Your task to perform on an android device: Open accessibility settings Image 0: 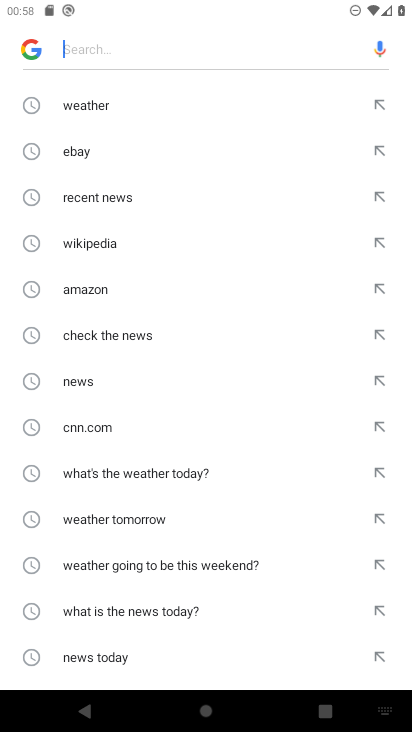
Step 0: press home button
Your task to perform on an android device: Open accessibility settings Image 1: 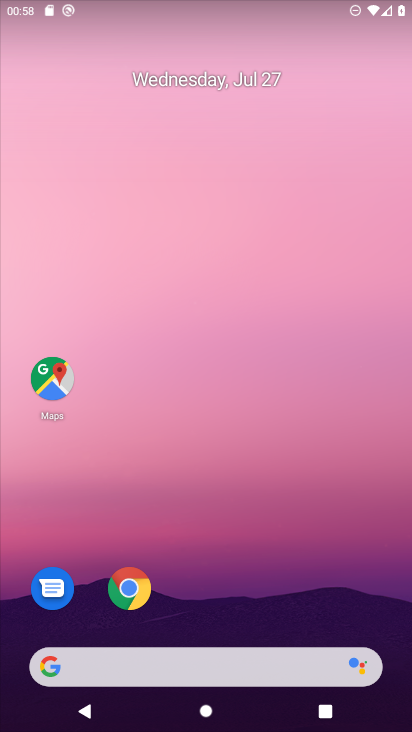
Step 1: drag from (117, 558) to (345, 6)
Your task to perform on an android device: Open accessibility settings Image 2: 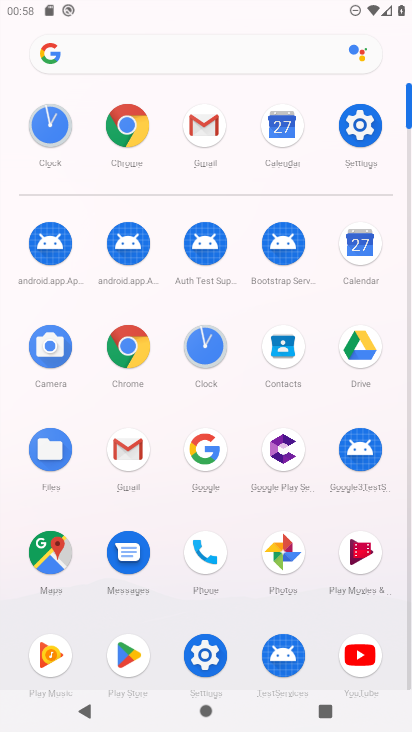
Step 2: click (187, 650)
Your task to perform on an android device: Open accessibility settings Image 3: 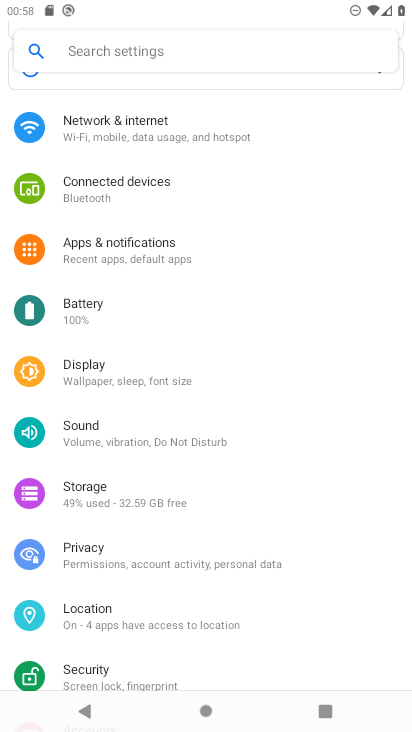
Step 3: drag from (188, 602) to (212, 361)
Your task to perform on an android device: Open accessibility settings Image 4: 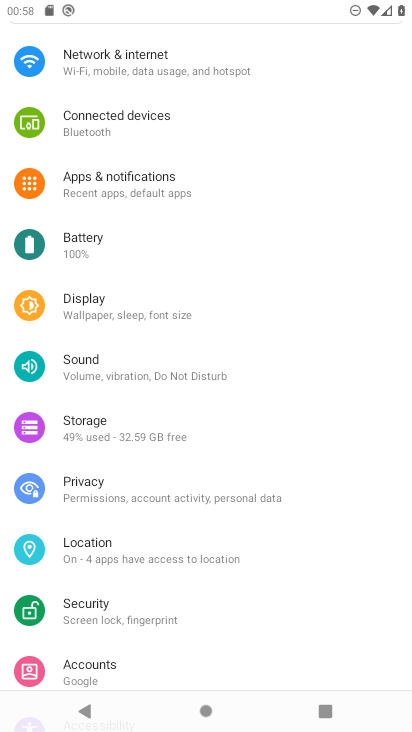
Step 4: drag from (256, 272) to (299, 570)
Your task to perform on an android device: Open accessibility settings Image 5: 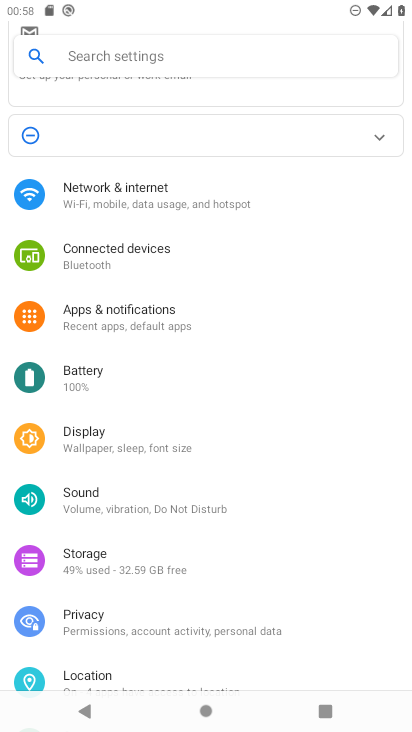
Step 5: drag from (297, 527) to (332, 73)
Your task to perform on an android device: Open accessibility settings Image 6: 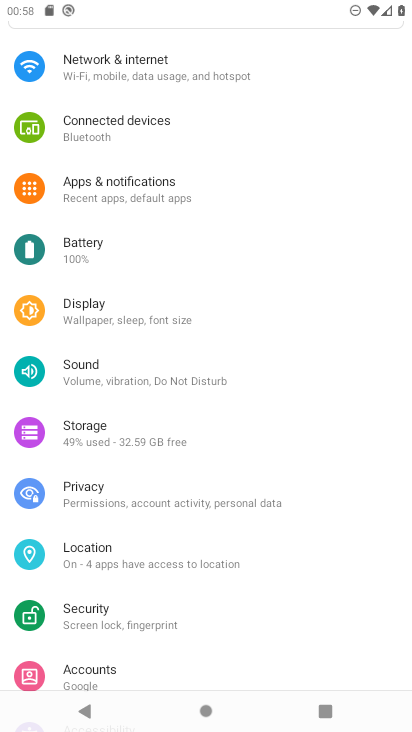
Step 6: drag from (250, 687) to (291, 236)
Your task to perform on an android device: Open accessibility settings Image 7: 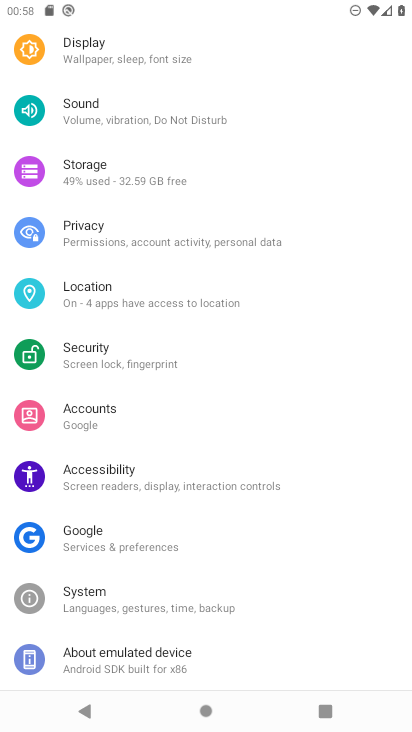
Step 7: click (116, 483)
Your task to perform on an android device: Open accessibility settings Image 8: 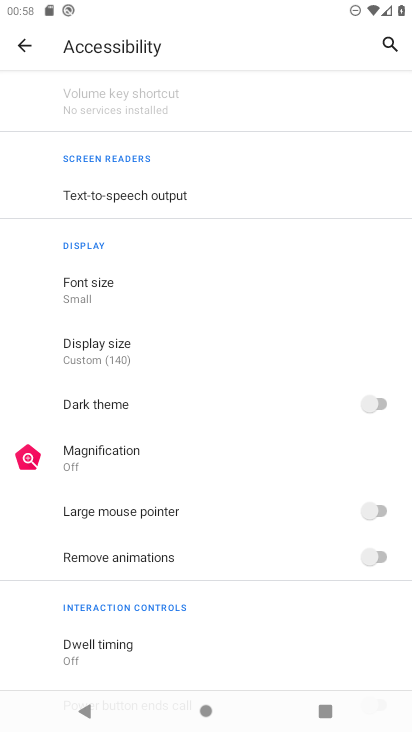
Step 8: task complete